Your task to perform on an android device: make emails show in primary in the gmail app Image 0: 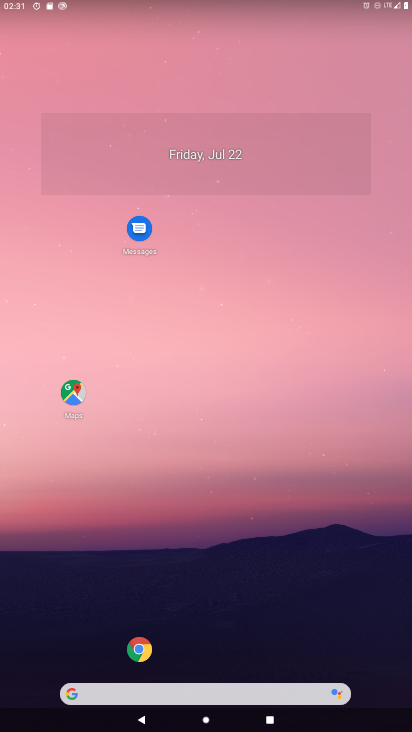
Step 0: drag from (12, 691) to (280, 290)
Your task to perform on an android device: make emails show in primary in the gmail app Image 1: 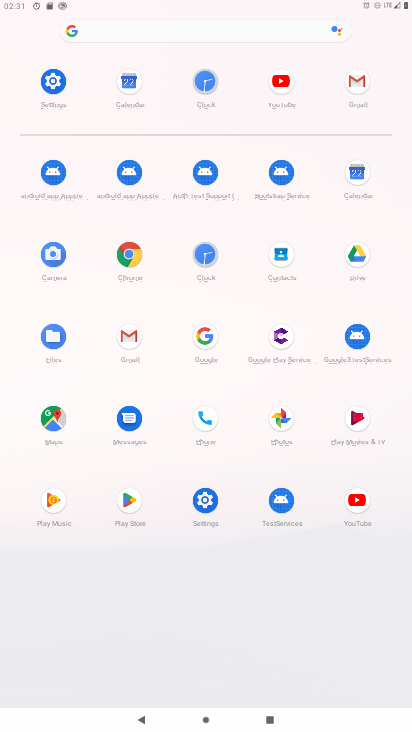
Step 1: click (123, 348)
Your task to perform on an android device: make emails show in primary in the gmail app Image 2: 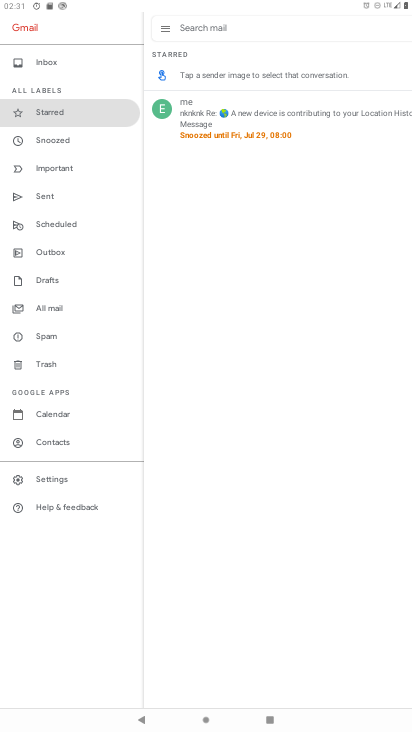
Step 2: click (48, 113)
Your task to perform on an android device: make emails show in primary in the gmail app Image 3: 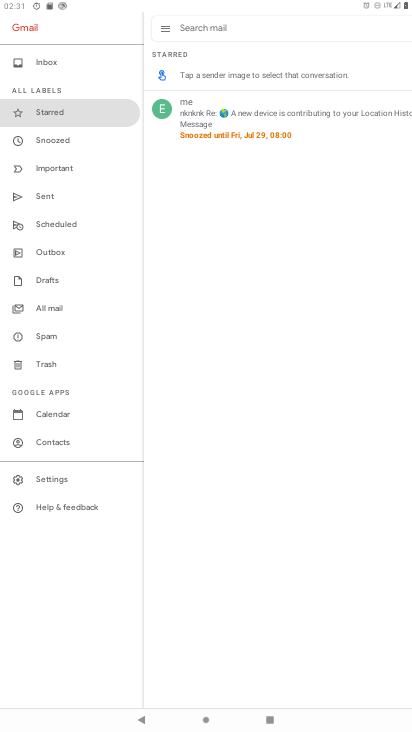
Step 3: click (51, 65)
Your task to perform on an android device: make emails show in primary in the gmail app Image 4: 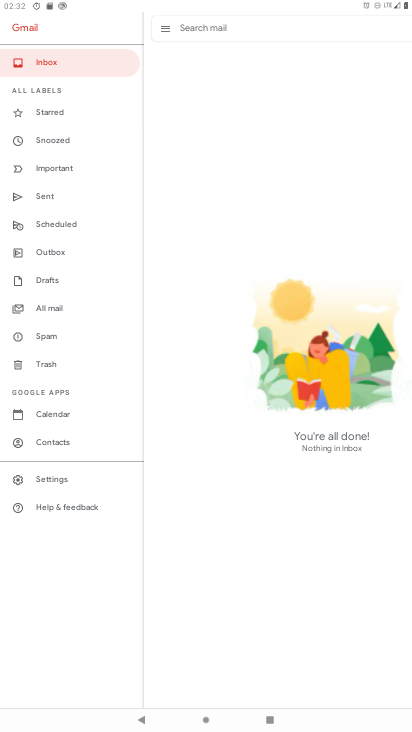
Step 4: task complete